Your task to perform on an android device: Search for seafood restaurants on Google Maps Image 0: 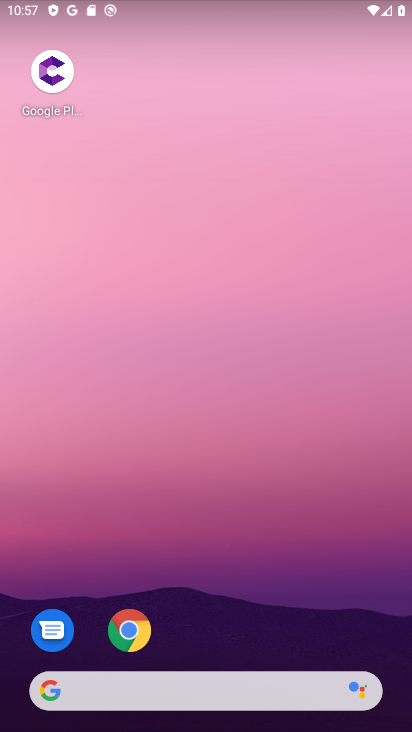
Step 0: drag from (243, 637) to (247, 41)
Your task to perform on an android device: Search for seafood restaurants on Google Maps Image 1: 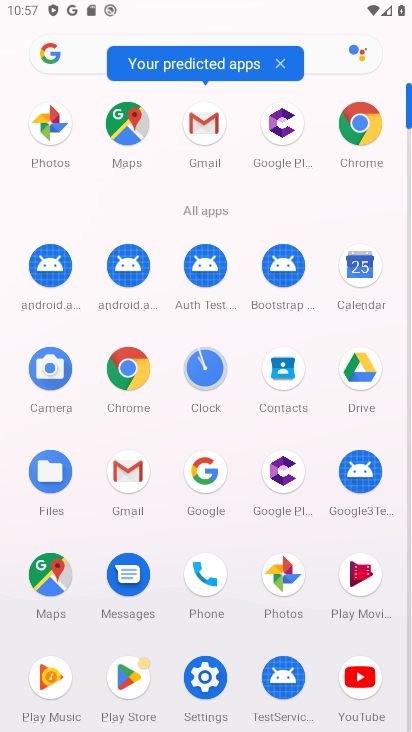
Step 1: click (125, 129)
Your task to perform on an android device: Search for seafood restaurants on Google Maps Image 2: 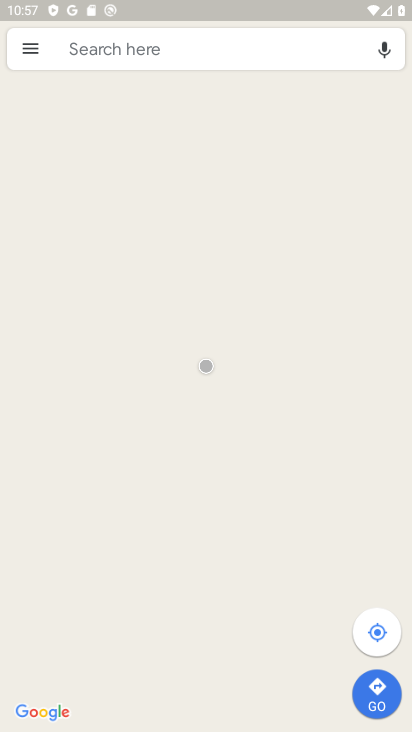
Step 2: click (130, 48)
Your task to perform on an android device: Search for seafood restaurants on Google Maps Image 3: 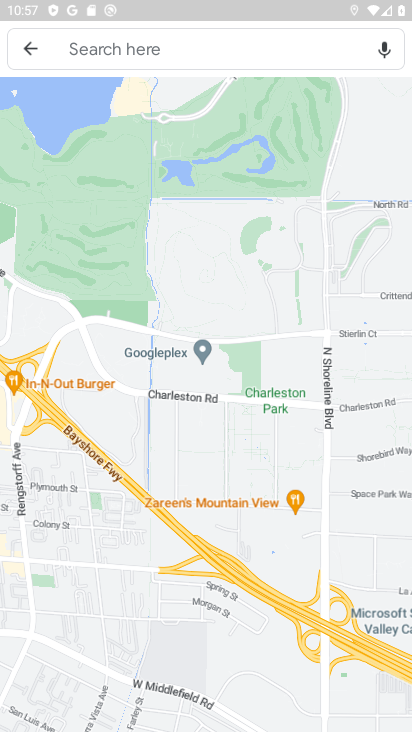
Step 3: click (81, 51)
Your task to perform on an android device: Search for seafood restaurants on Google Maps Image 4: 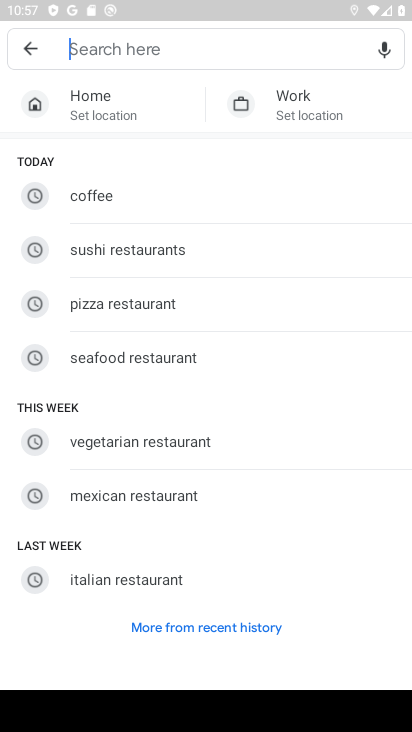
Step 4: type "seafood restaurants"
Your task to perform on an android device: Search for seafood restaurants on Google Maps Image 5: 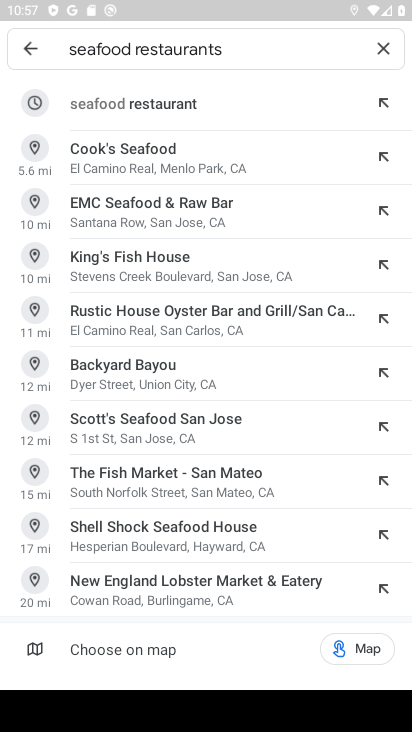
Step 5: click (134, 114)
Your task to perform on an android device: Search for seafood restaurants on Google Maps Image 6: 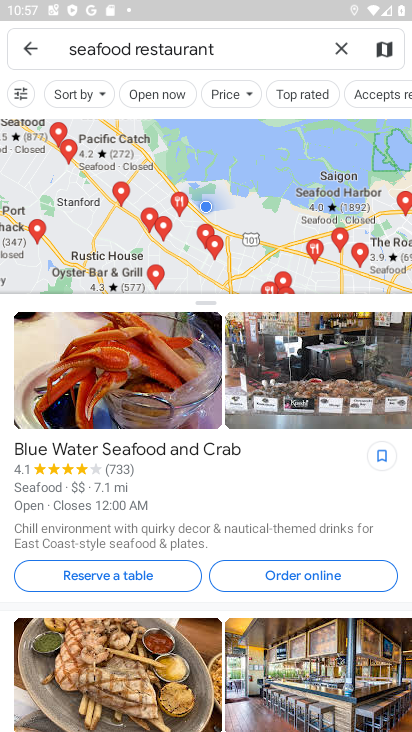
Step 6: task complete